Your task to perform on an android device: Open eBay Image 0: 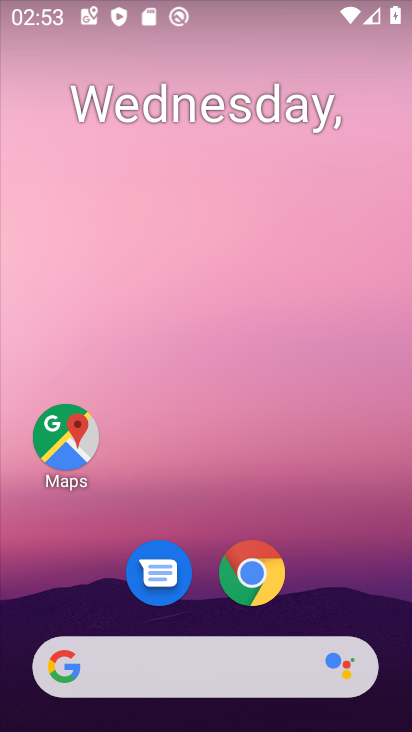
Step 0: drag from (358, 570) to (344, 6)
Your task to perform on an android device: Open eBay Image 1: 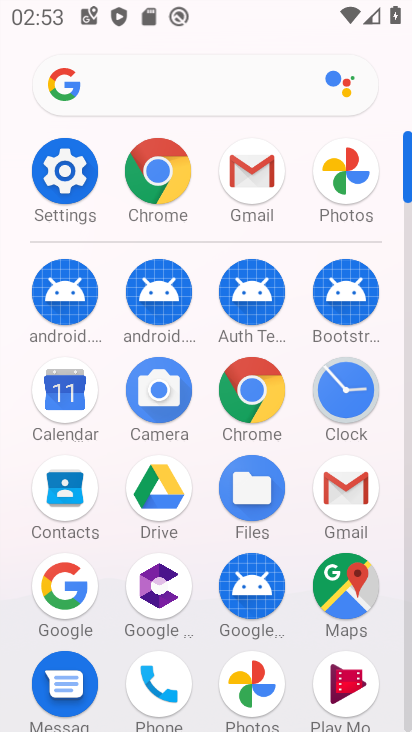
Step 1: click (60, 583)
Your task to perform on an android device: Open eBay Image 2: 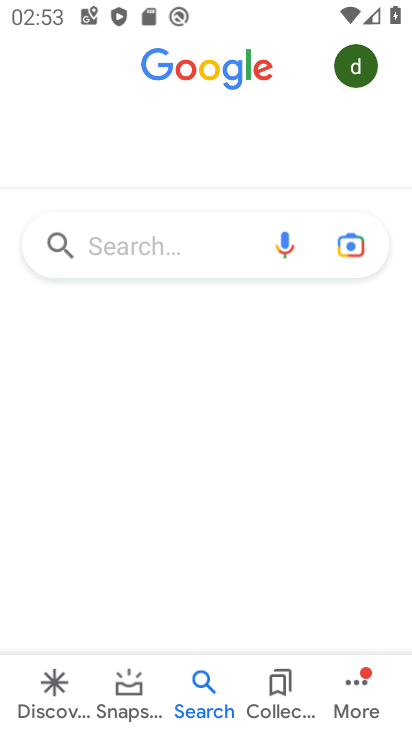
Step 2: click (170, 230)
Your task to perform on an android device: Open eBay Image 3: 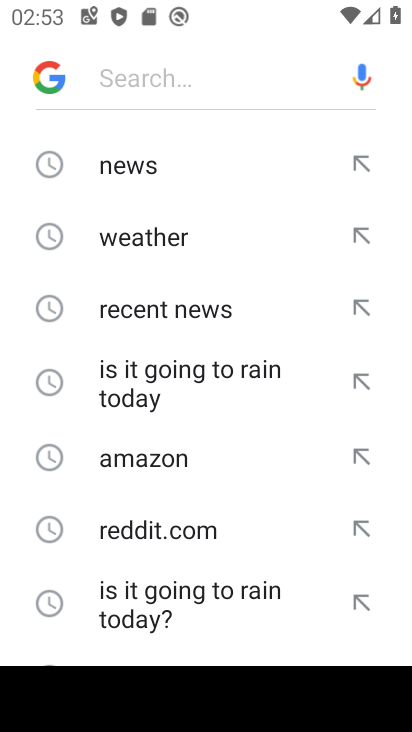
Step 3: type "eBay"
Your task to perform on an android device: Open eBay Image 4: 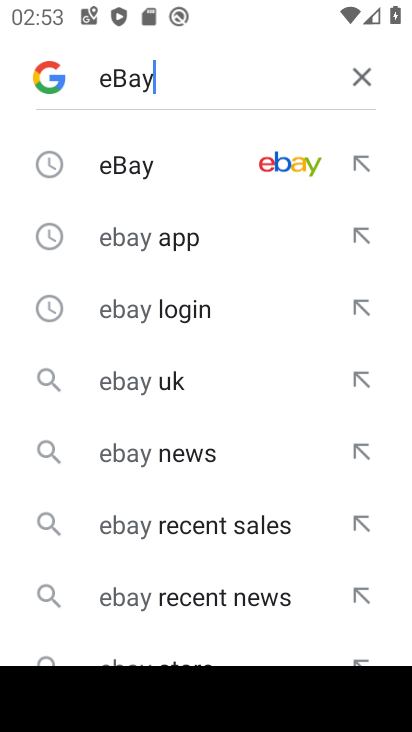
Step 4: click (130, 163)
Your task to perform on an android device: Open eBay Image 5: 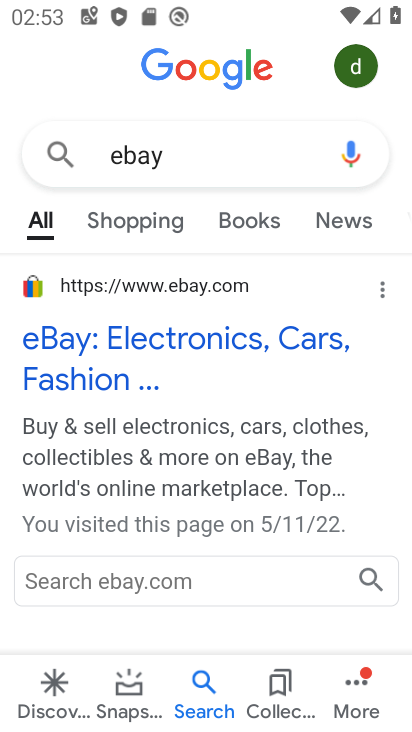
Step 5: click (109, 341)
Your task to perform on an android device: Open eBay Image 6: 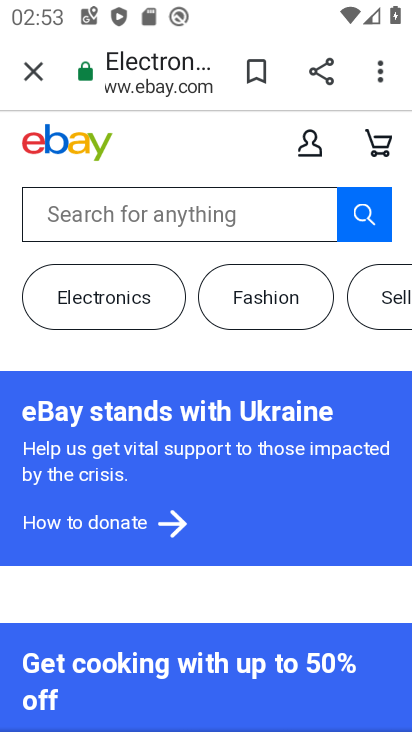
Step 6: click (109, 341)
Your task to perform on an android device: Open eBay Image 7: 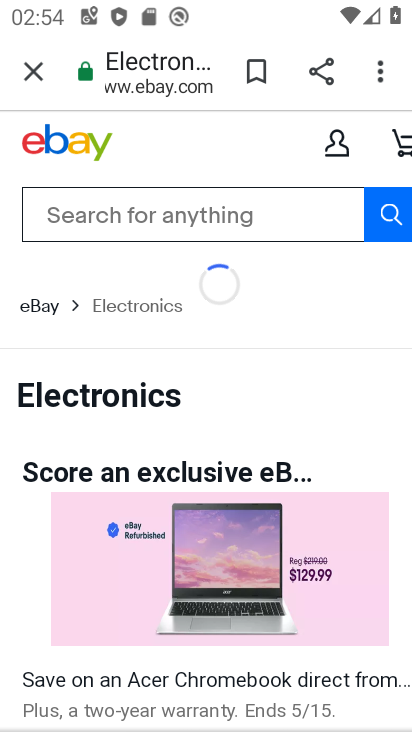
Step 7: task complete